Your task to perform on an android device: toggle notification dots Image 0: 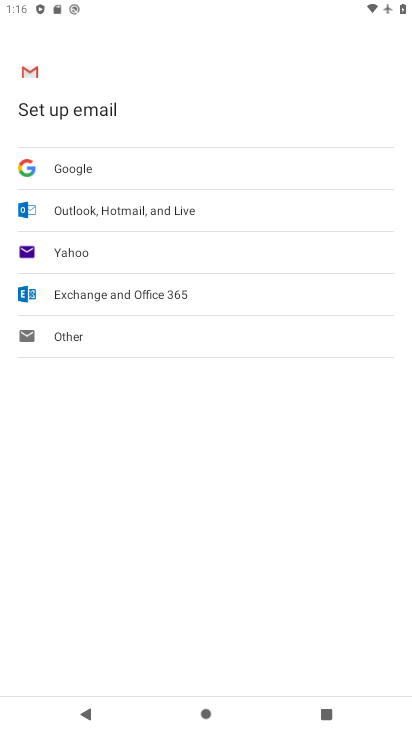
Step 0: press home button
Your task to perform on an android device: toggle notification dots Image 1: 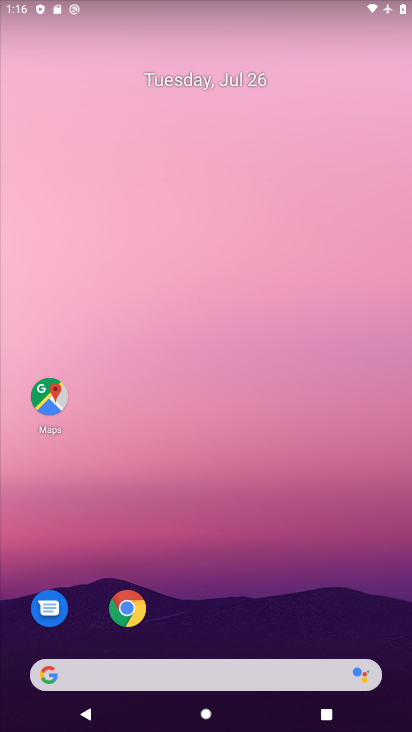
Step 1: drag from (265, 513) to (341, 21)
Your task to perform on an android device: toggle notification dots Image 2: 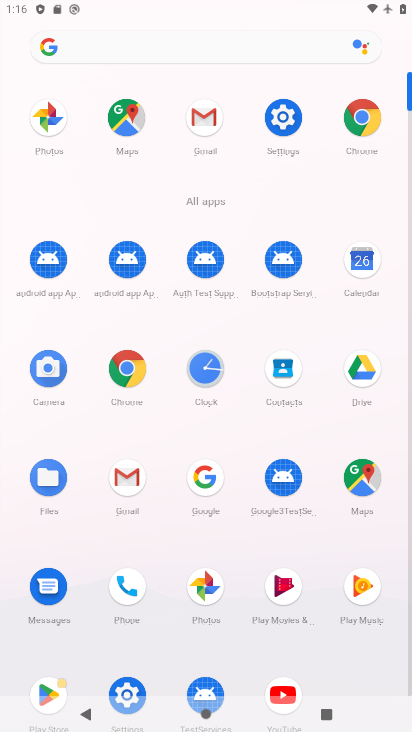
Step 2: drag from (167, 200) to (183, 31)
Your task to perform on an android device: toggle notification dots Image 3: 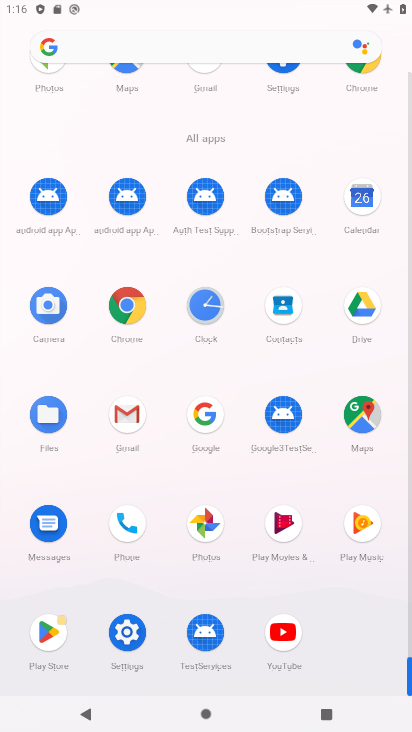
Step 3: click (123, 633)
Your task to perform on an android device: toggle notification dots Image 4: 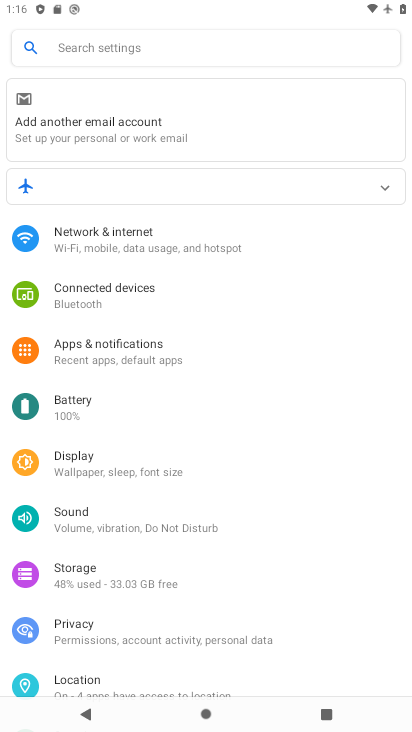
Step 4: click (172, 354)
Your task to perform on an android device: toggle notification dots Image 5: 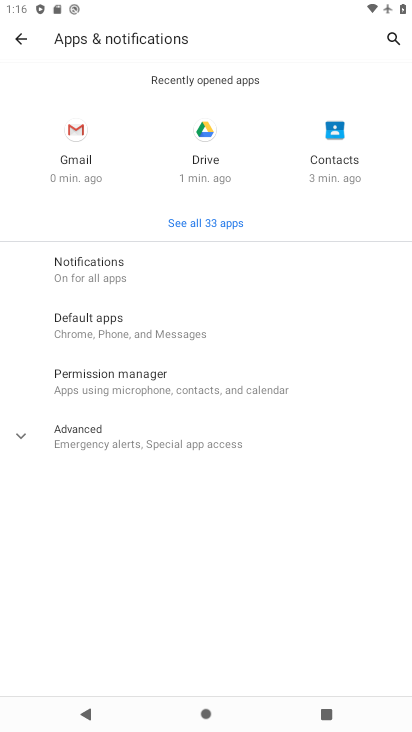
Step 5: click (189, 286)
Your task to perform on an android device: toggle notification dots Image 6: 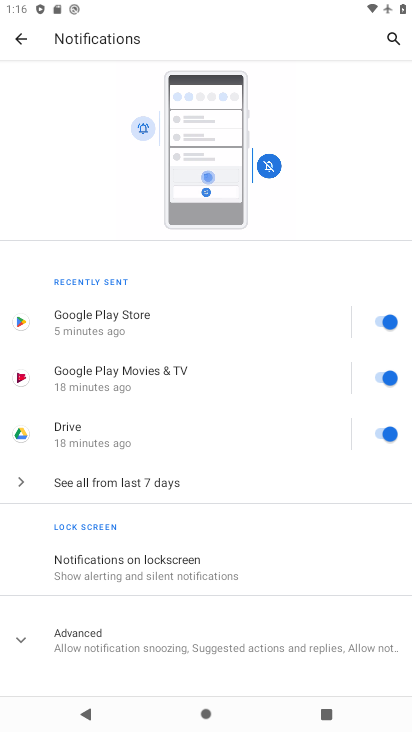
Step 6: drag from (203, 600) to (203, 367)
Your task to perform on an android device: toggle notification dots Image 7: 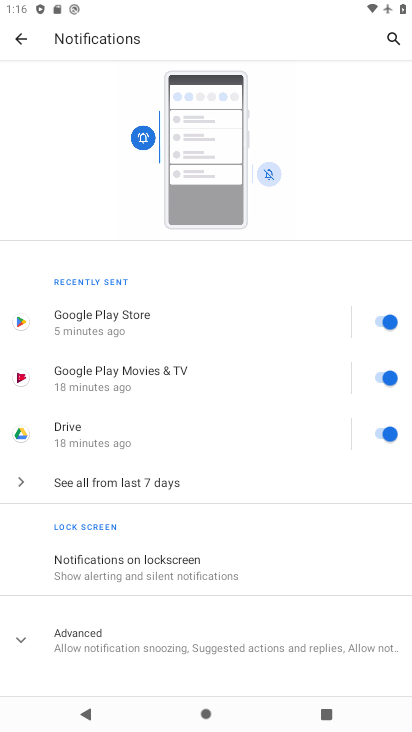
Step 7: click (178, 656)
Your task to perform on an android device: toggle notification dots Image 8: 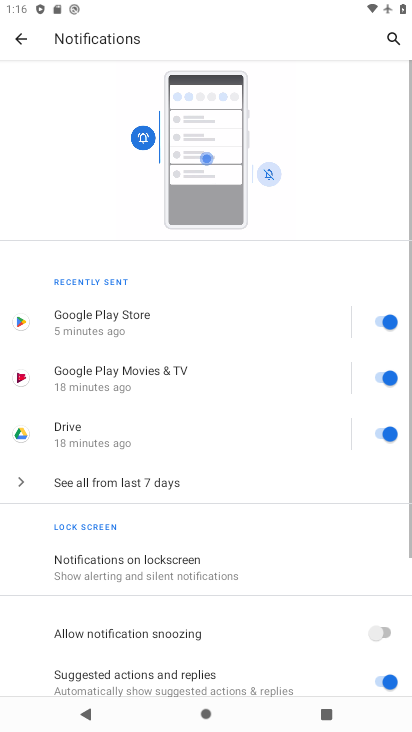
Step 8: drag from (177, 648) to (221, 305)
Your task to perform on an android device: toggle notification dots Image 9: 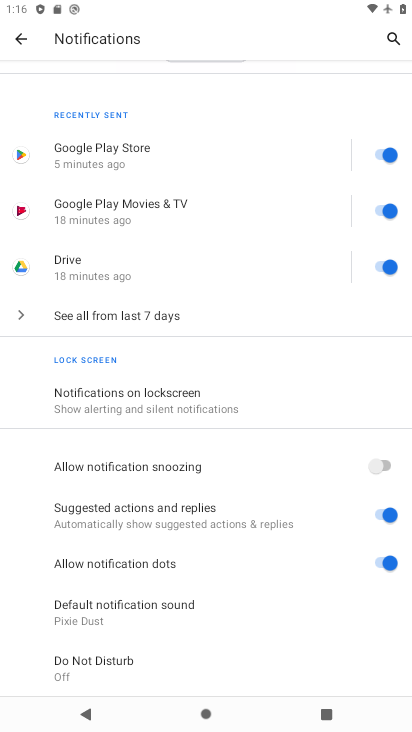
Step 9: click (398, 561)
Your task to perform on an android device: toggle notification dots Image 10: 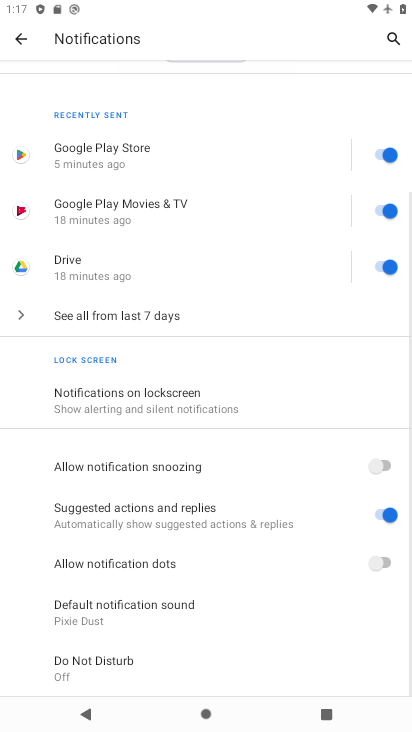
Step 10: task complete